Your task to perform on an android device: turn off notifications settings in the gmail app Image 0: 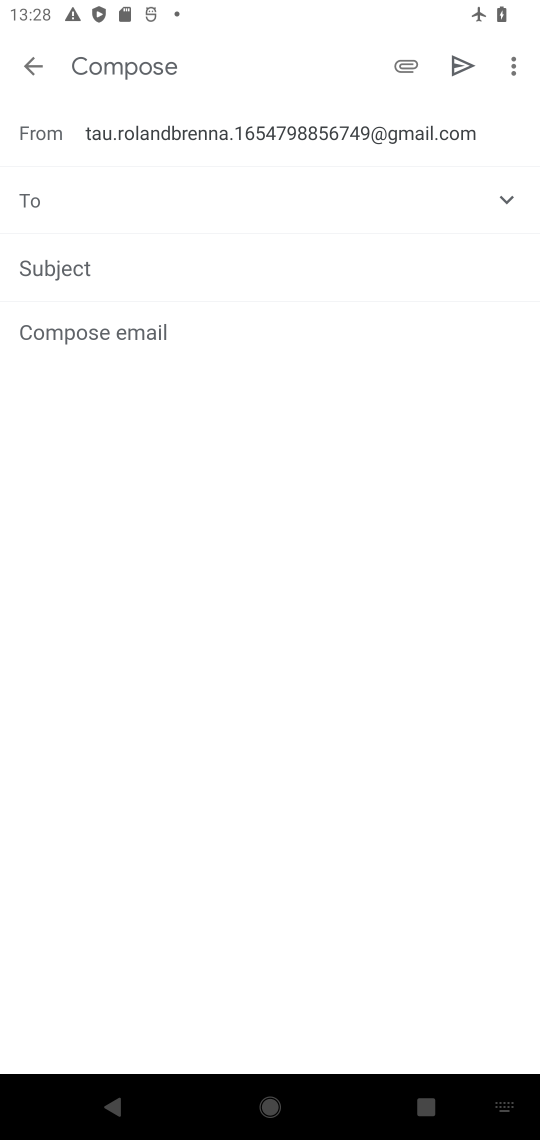
Step 0: drag from (297, 318) to (286, 222)
Your task to perform on an android device: turn off notifications settings in the gmail app Image 1: 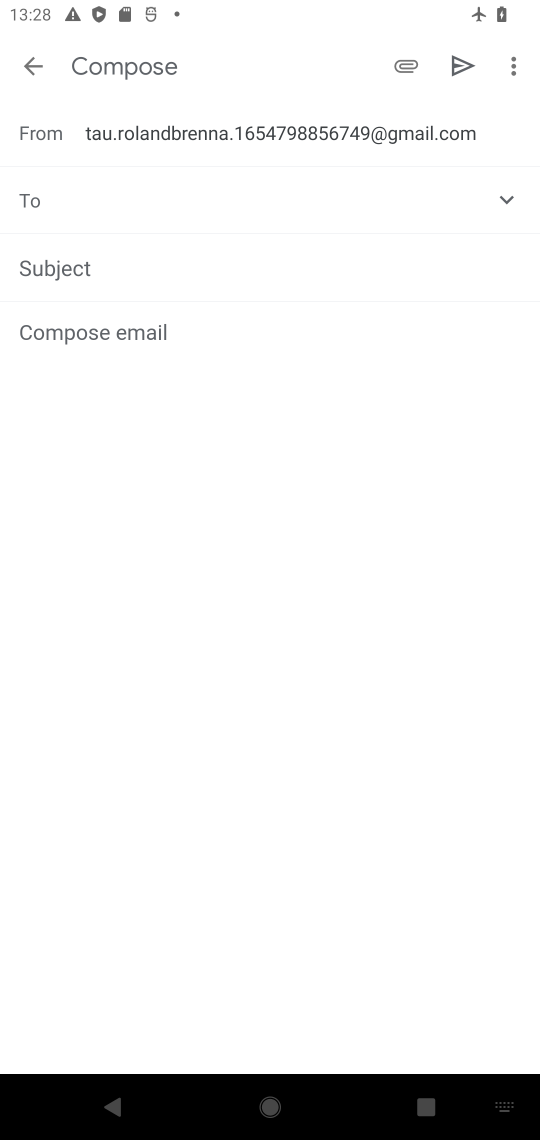
Step 1: press home button
Your task to perform on an android device: turn off notifications settings in the gmail app Image 2: 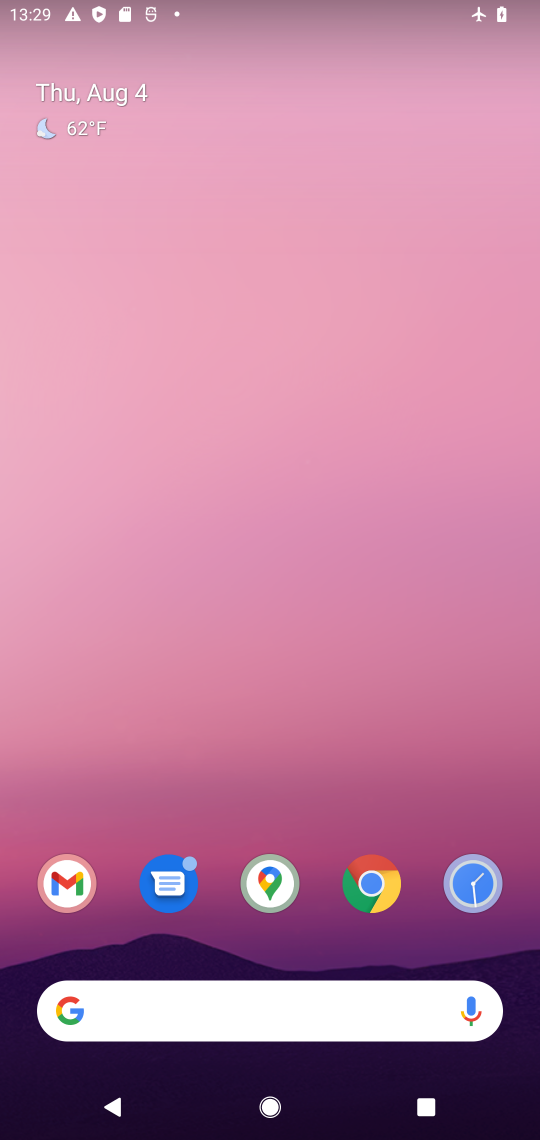
Step 2: drag from (228, 954) to (273, 579)
Your task to perform on an android device: turn off notifications settings in the gmail app Image 3: 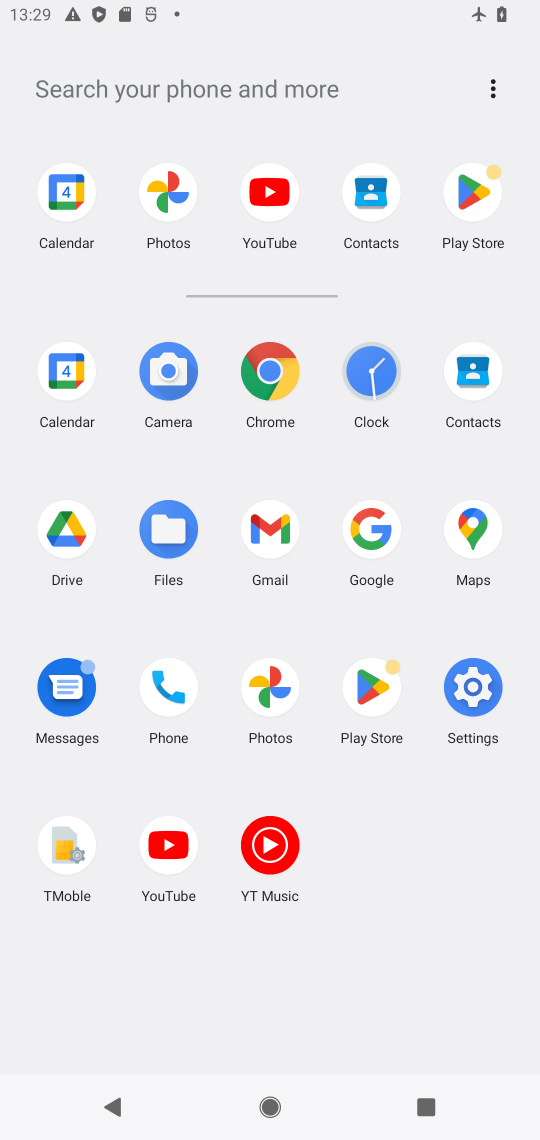
Step 3: click (269, 516)
Your task to perform on an android device: turn off notifications settings in the gmail app Image 4: 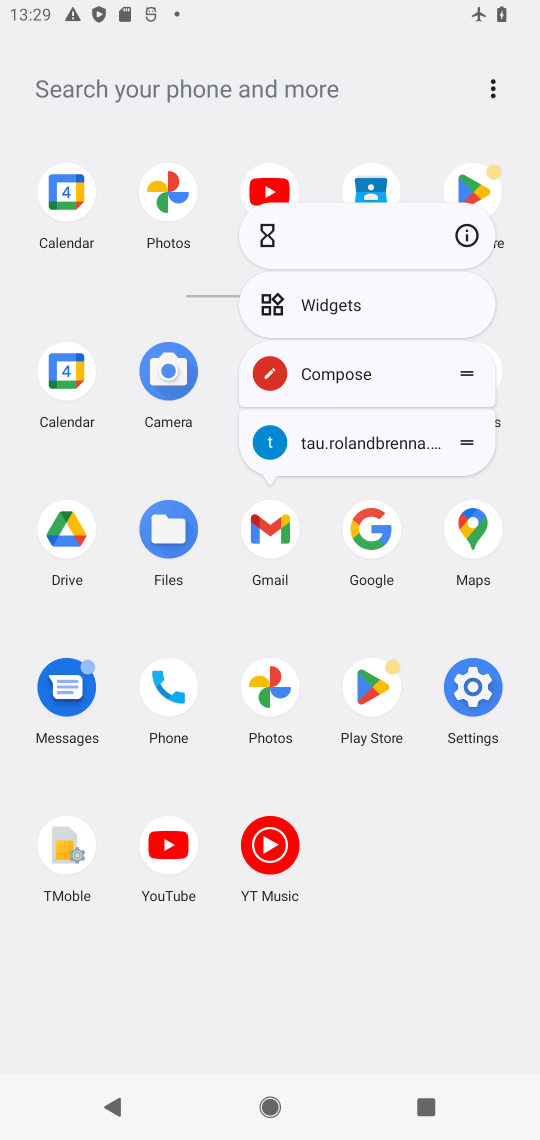
Step 4: click (467, 242)
Your task to perform on an android device: turn off notifications settings in the gmail app Image 5: 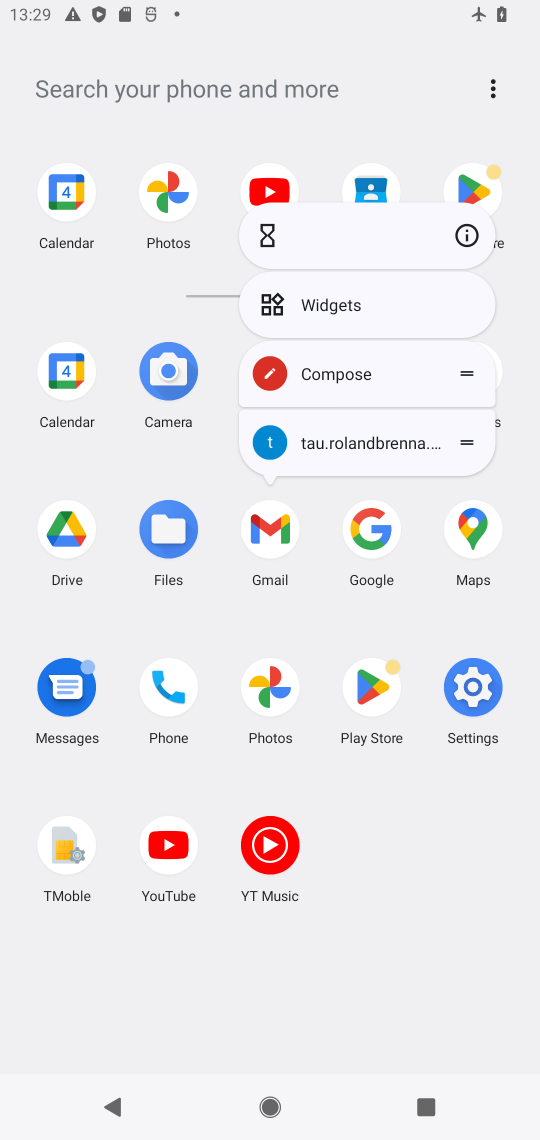
Step 5: click (468, 234)
Your task to perform on an android device: turn off notifications settings in the gmail app Image 6: 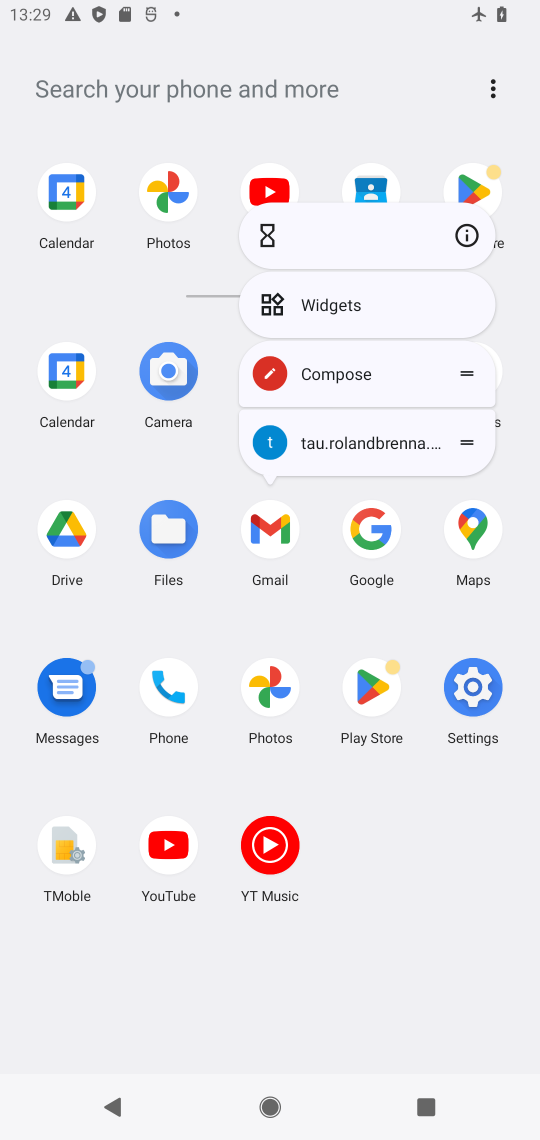
Step 6: click (469, 236)
Your task to perform on an android device: turn off notifications settings in the gmail app Image 7: 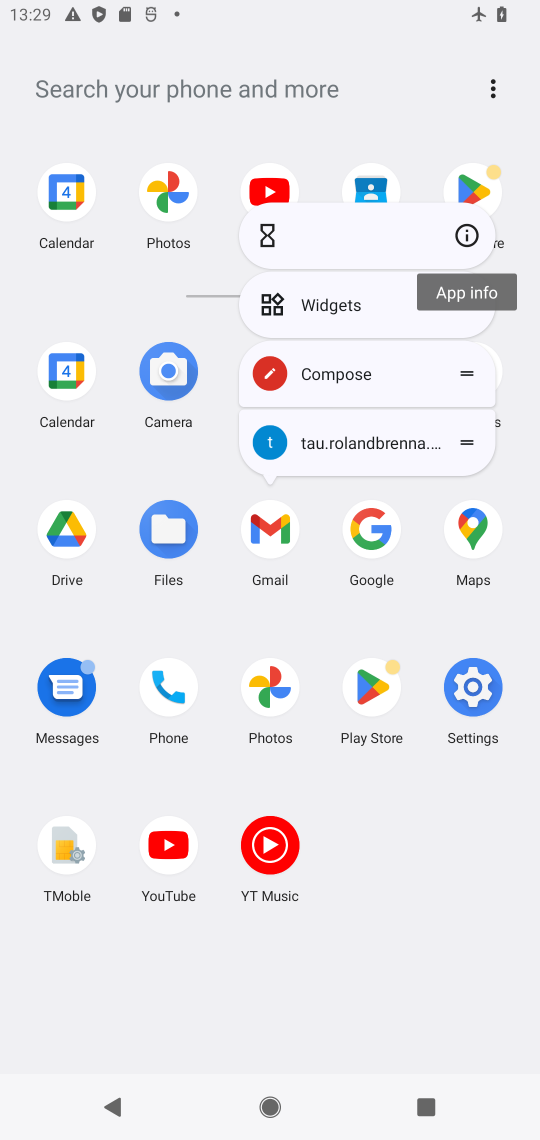
Step 7: click (471, 237)
Your task to perform on an android device: turn off notifications settings in the gmail app Image 8: 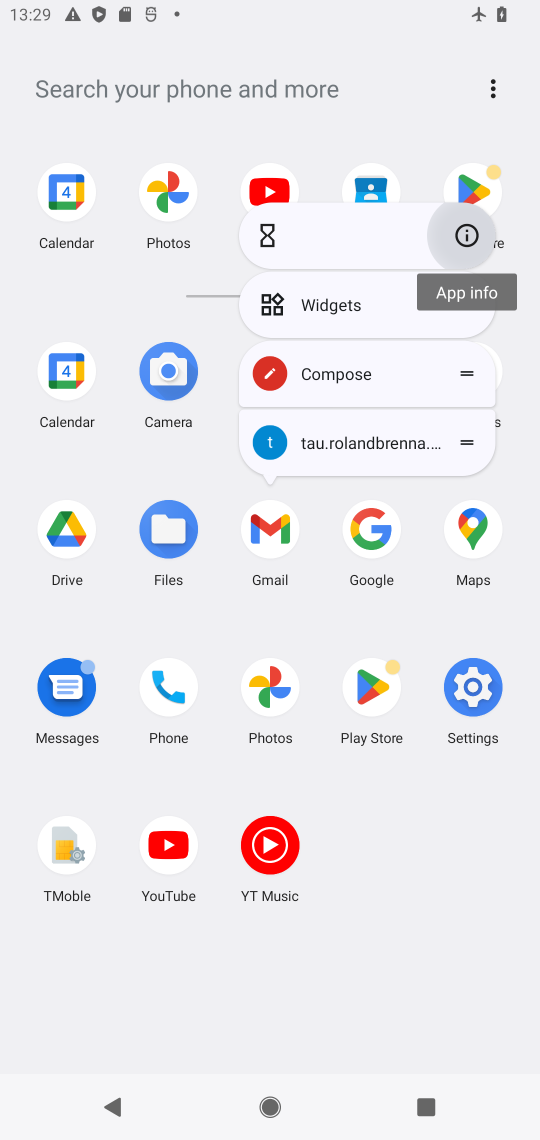
Step 8: click (471, 237)
Your task to perform on an android device: turn off notifications settings in the gmail app Image 9: 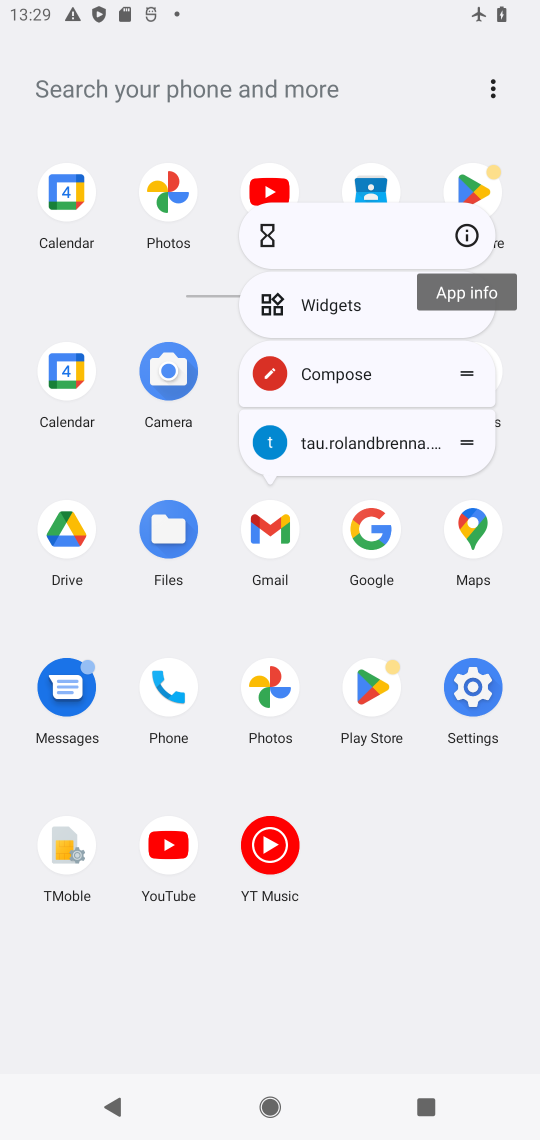
Step 9: click (291, 505)
Your task to perform on an android device: turn off notifications settings in the gmail app Image 10: 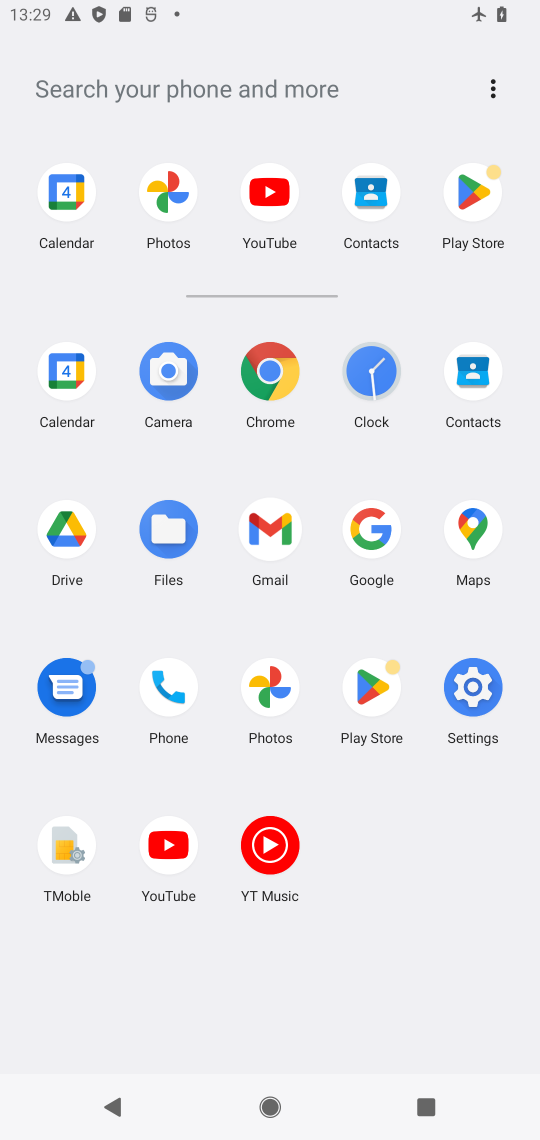
Step 10: click (258, 523)
Your task to perform on an android device: turn off notifications settings in the gmail app Image 11: 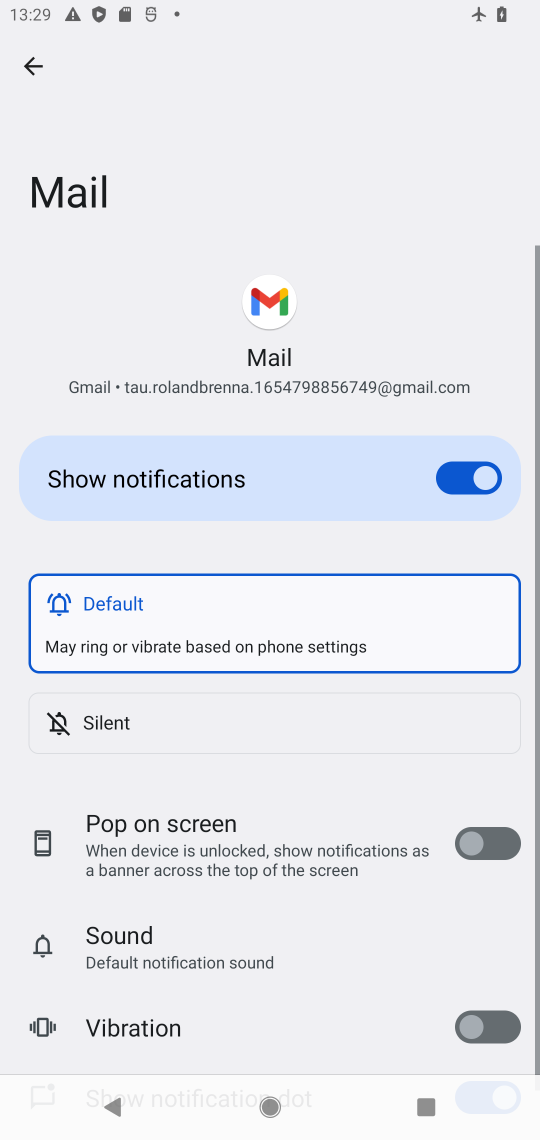
Step 11: drag from (258, 556) to (362, 102)
Your task to perform on an android device: turn off notifications settings in the gmail app Image 12: 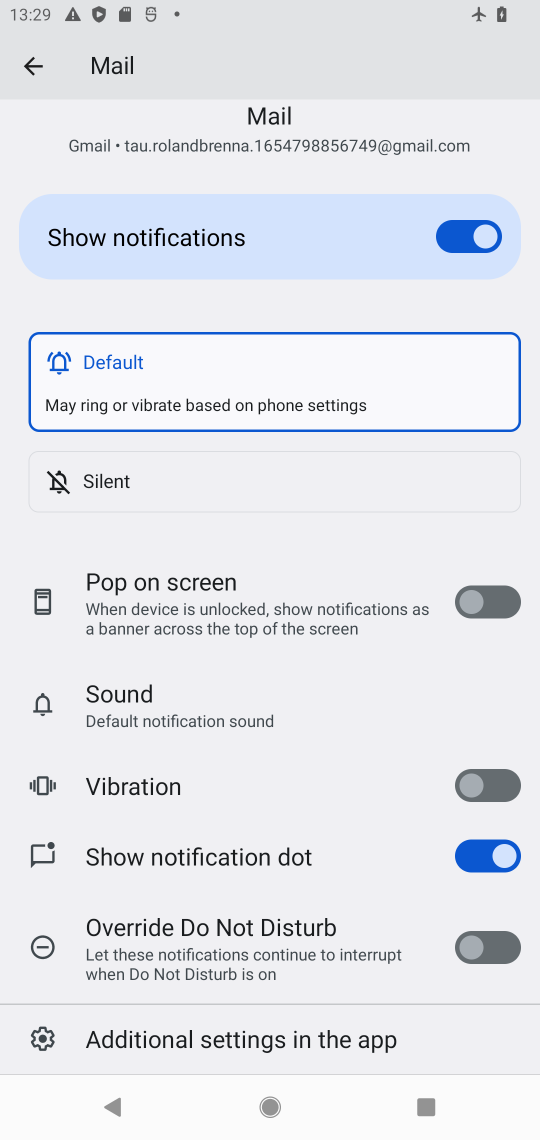
Step 12: drag from (286, 677) to (347, 447)
Your task to perform on an android device: turn off notifications settings in the gmail app Image 13: 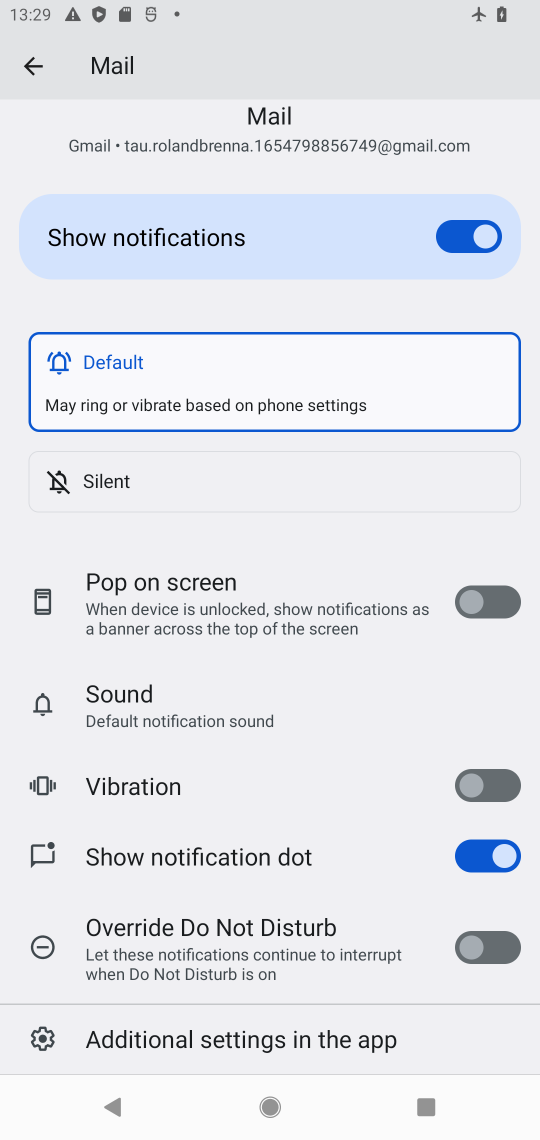
Step 13: drag from (332, 583) to (256, 1060)
Your task to perform on an android device: turn off notifications settings in the gmail app Image 14: 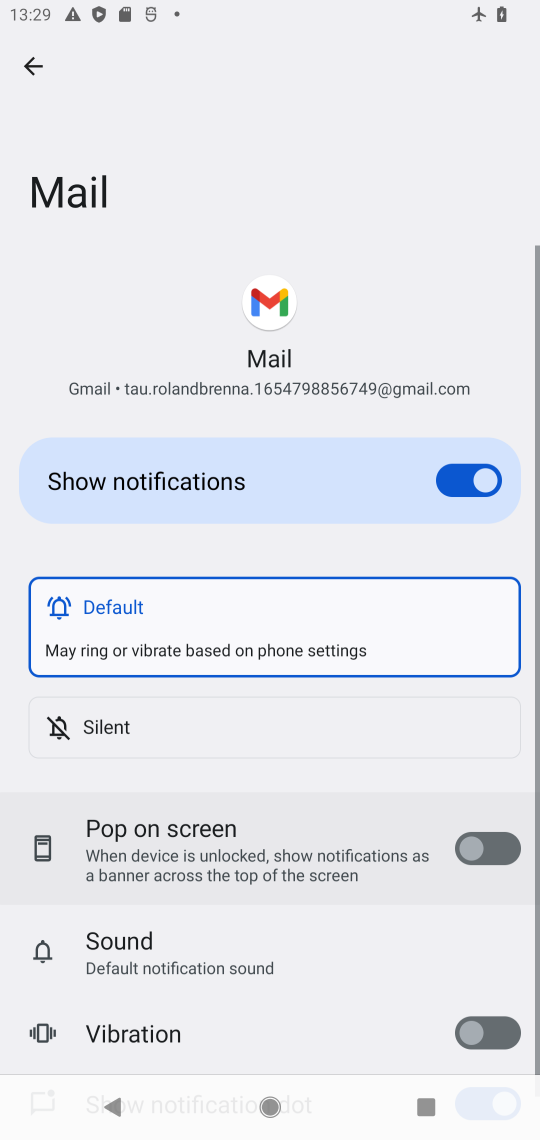
Step 14: drag from (333, 1003) to (360, 457)
Your task to perform on an android device: turn off notifications settings in the gmail app Image 15: 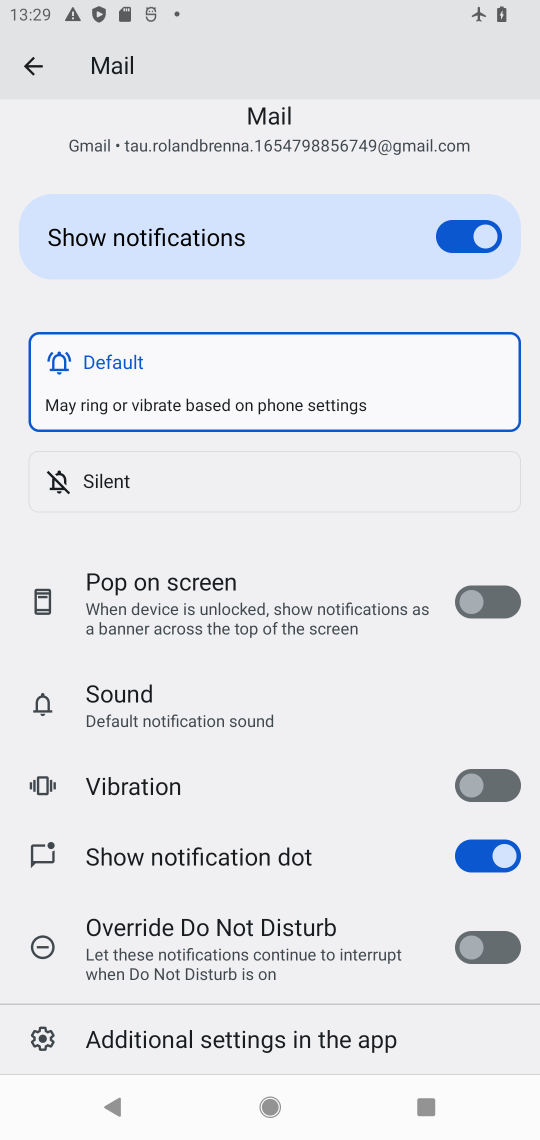
Step 15: drag from (275, 631) to (421, 1137)
Your task to perform on an android device: turn off notifications settings in the gmail app Image 16: 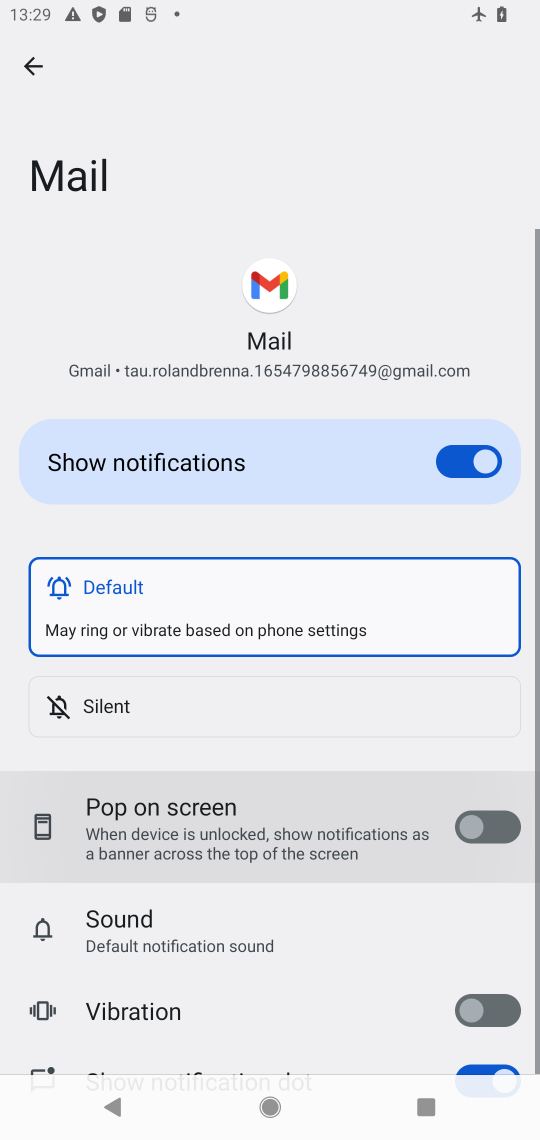
Step 16: drag from (388, 978) to (412, 535)
Your task to perform on an android device: turn off notifications settings in the gmail app Image 17: 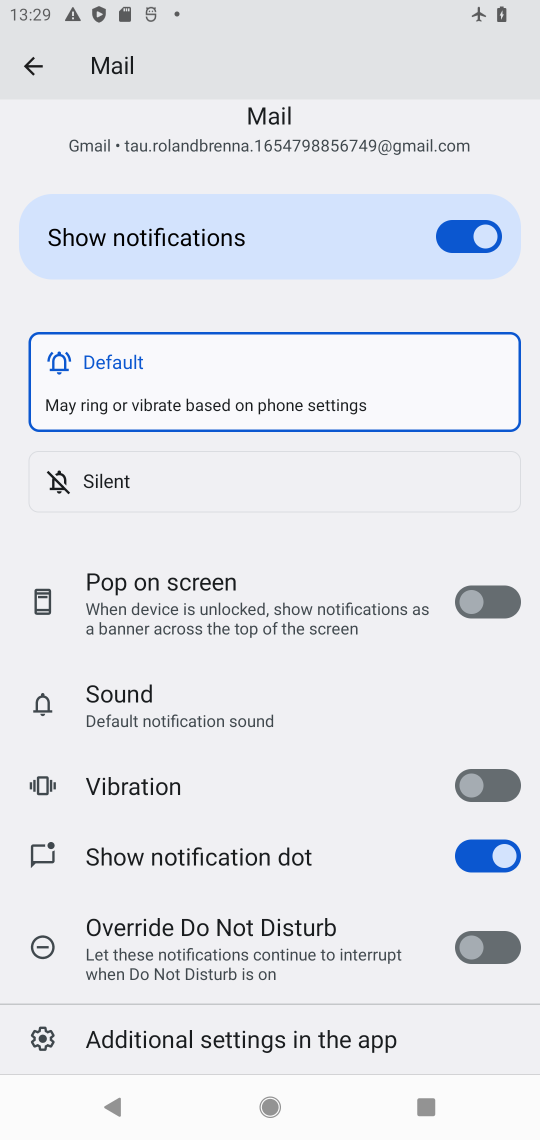
Step 17: click (484, 236)
Your task to perform on an android device: turn off notifications settings in the gmail app Image 18: 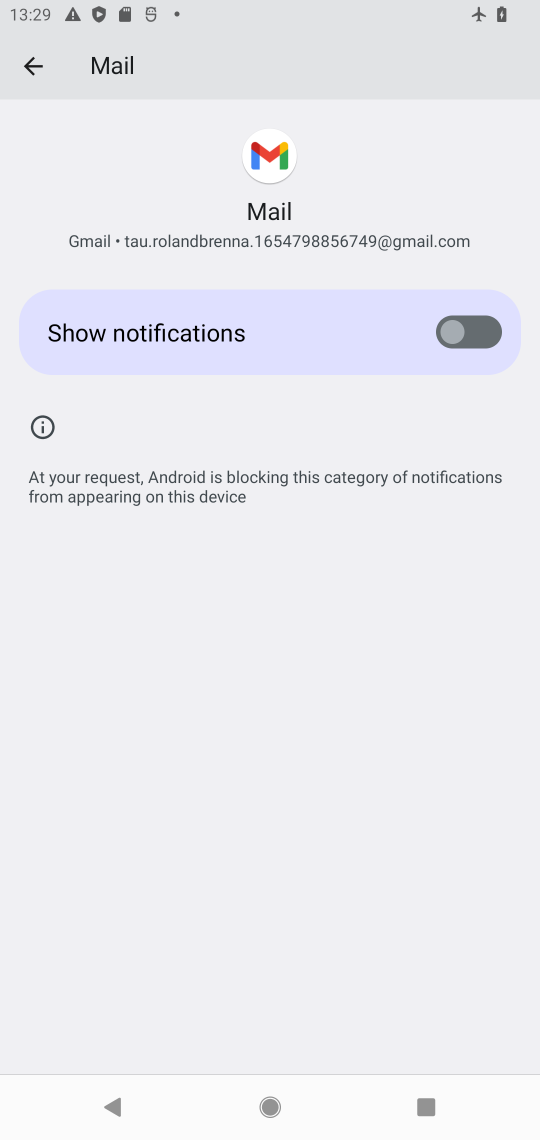
Step 18: task complete